Your task to perform on an android device: open a bookmark in the chrome app Image 0: 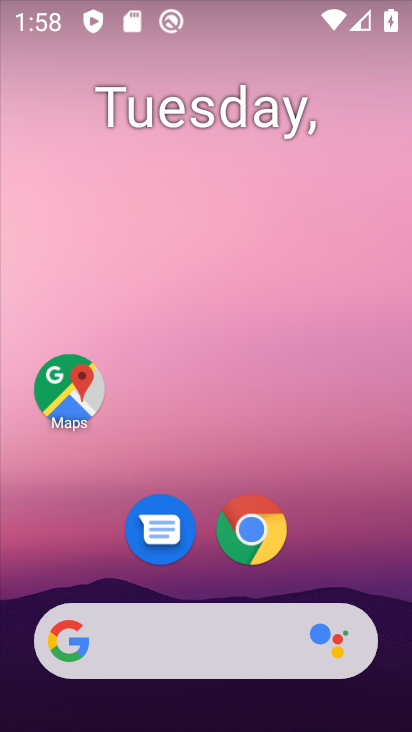
Step 0: drag from (380, 564) to (255, 125)
Your task to perform on an android device: open a bookmark in the chrome app Image 1: 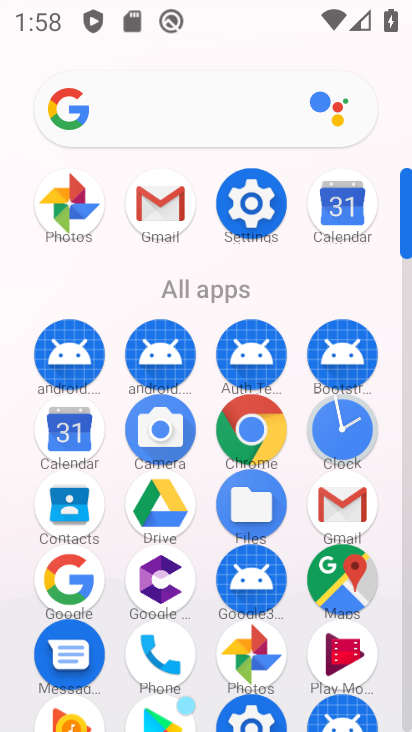
Step 1: click (254, 426)
Your task to perform on an android device: open a bookmark in the chrome app Image 2: 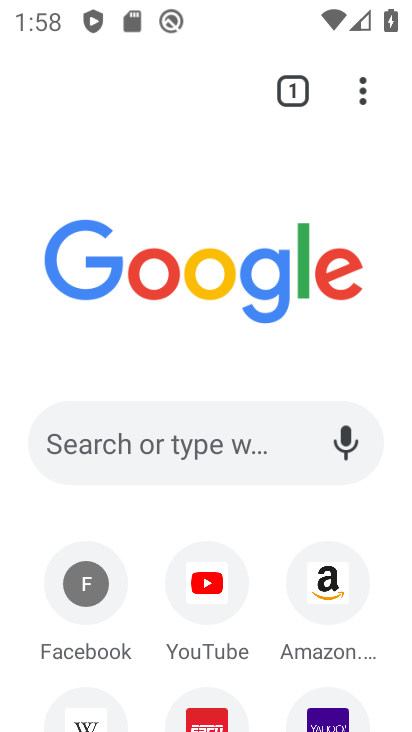
Step 2: click (359, 117)
Your task to perform on an android device: open a bookmark in the chrome app Image 3: 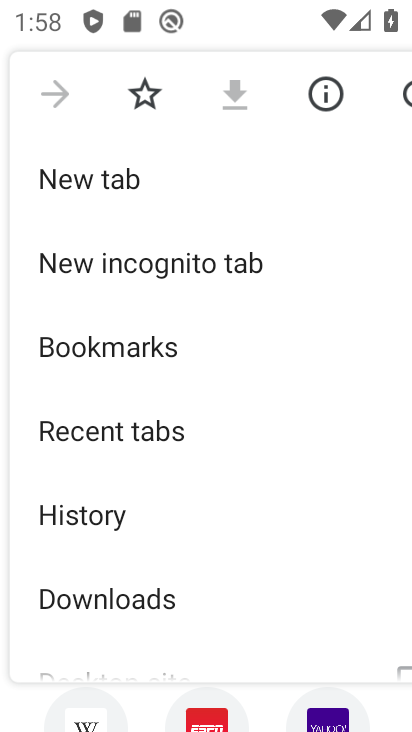
Step 3: click (157, 354)
Your task to perform on an android device: open a bookmark in the chrome app Image 4: 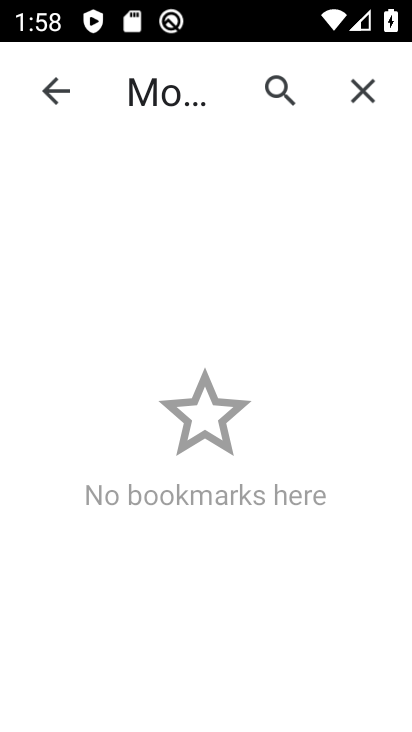
Step 4: task complete